Your task to perform on an android device: Go to Amazon Image 0: 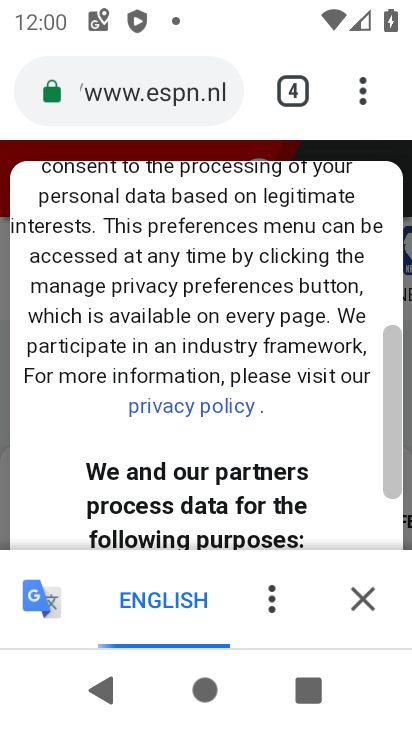
Step 0: press home button
Your task to perform on an android device: Go to Amazon Image 1: 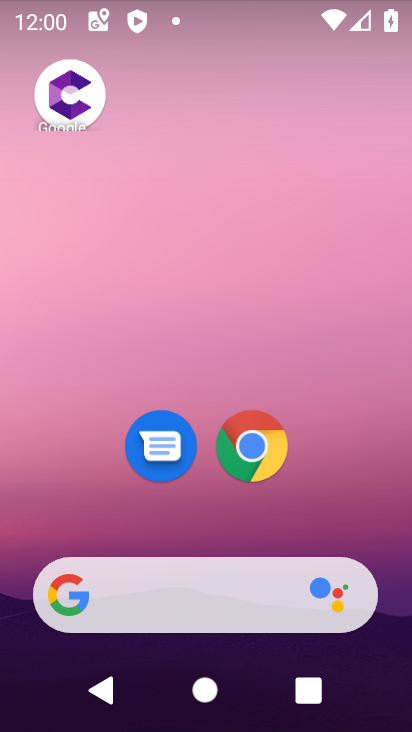
Step 1: drag from (320, 528) to (334, 0)
Your task to perform on an android device: Go to Amazon Image 2: 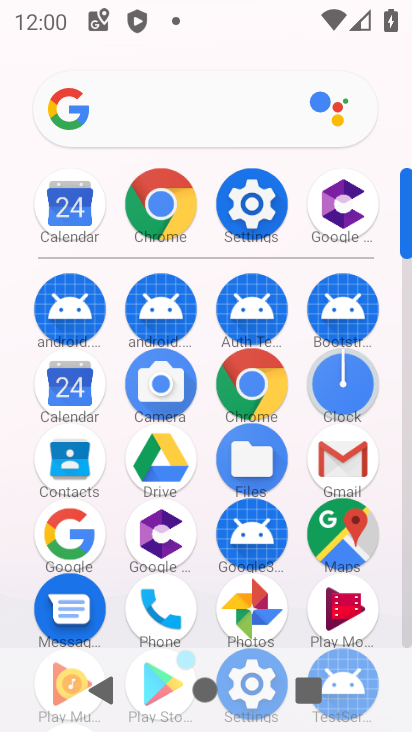
Step 2: click (148, 227)
Your task to perform on an android device: Go to Amazon Image 3: 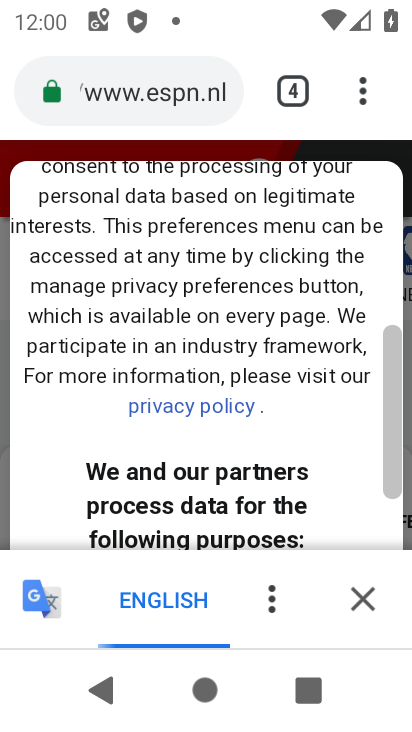
Step 3: click (182, 89)
Your task to perform on an android device: Go to Amazon Image 4: 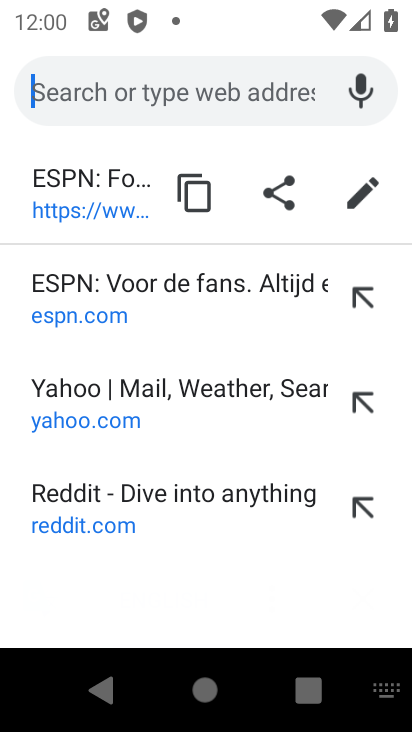
Step 4: type "amzon"
Your task to perform on an android device: Go to Amazon Image 5: 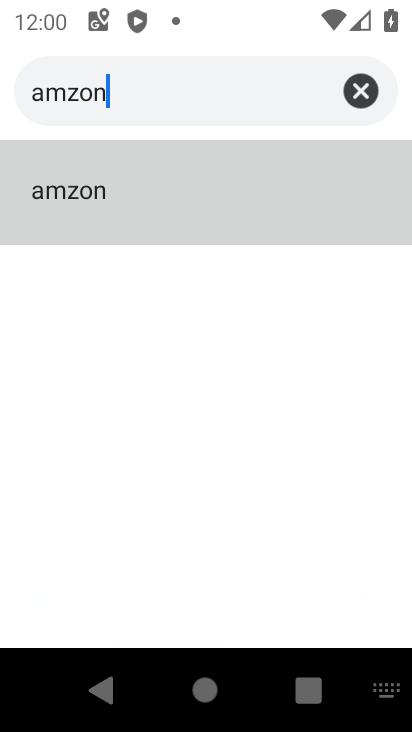
Step 5: click (94, 241)
Your task to perform on an android device: Go to Amazon Image 6: 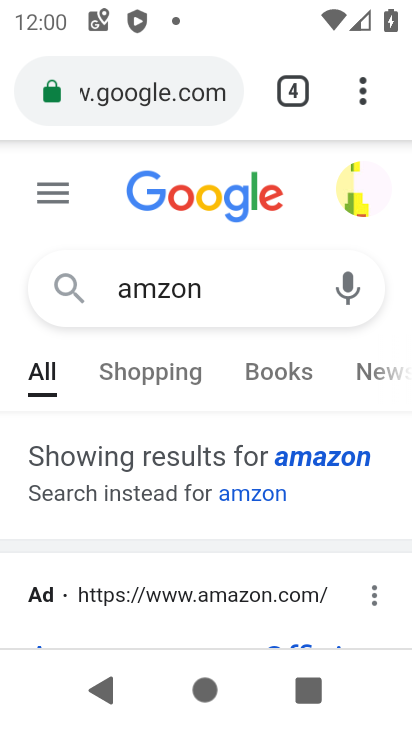
Step 6: drag from (201, 533) to (215, 135)
Your task to perform on an android device: Go to Amazon Image 7: 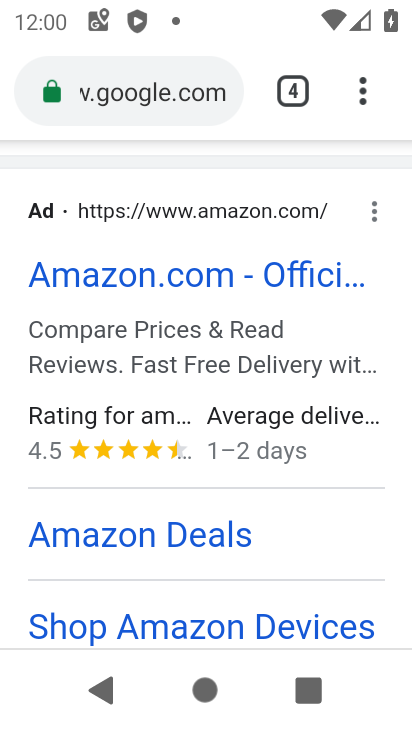
Step 7: click (156, 249)
Your task to perform on an android device: Go to Amazon Image 8: 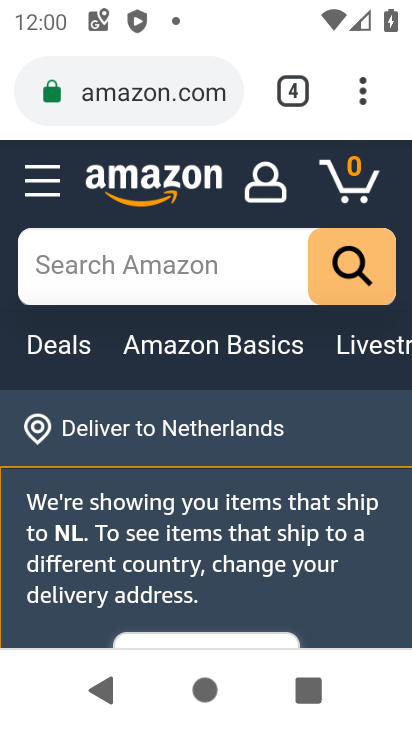
Step 8: task complete